Your task to perform on an android device: turn off airplane mode Image 0: 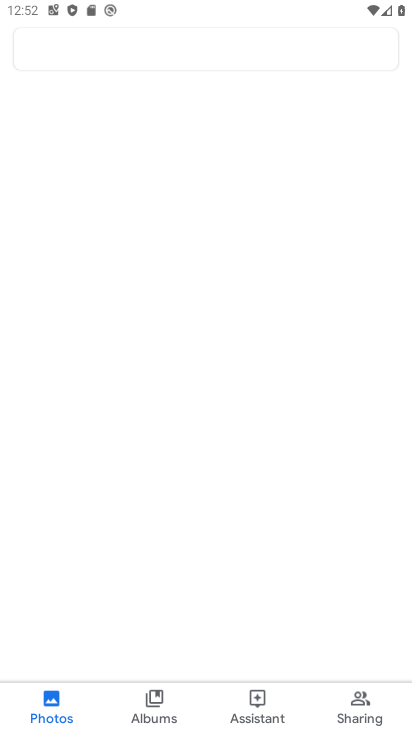
Step 0: press home button
Your task to perform on an android device: turn off airplane mode Image 1: 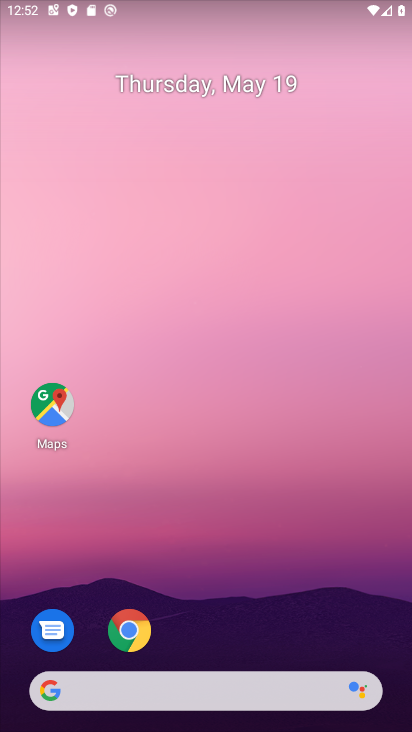
Step 1: drag from (214, 661) to (197, 57)
Your task to perform on an android device: turn off airplane mode Image 2: 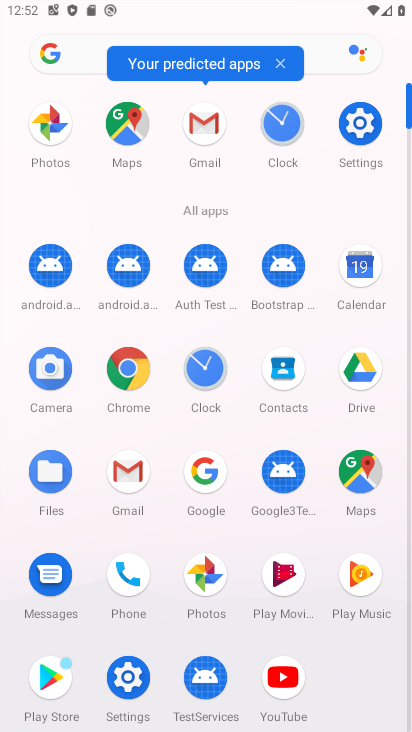
Step 2: click (371, 132)
Your task to perform on an android device: turn off airplane mode Image 3: 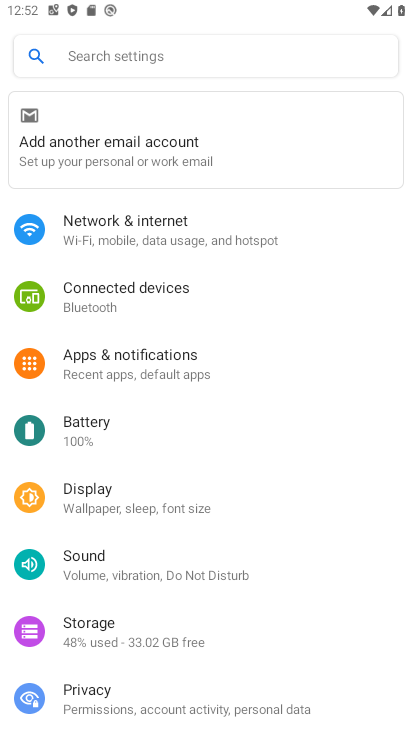
Step 3: click (140, 227)
Your task to perform on an android device: turn off airplane mode Image 4: 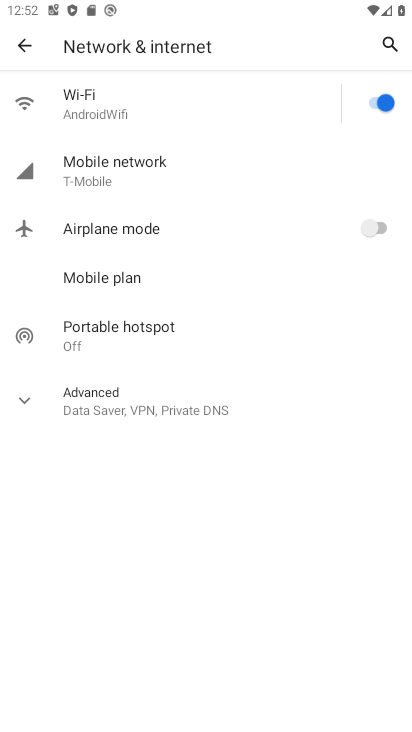
Step 4: task complete